Your task to perform on an android device: toggle location history Image 0: 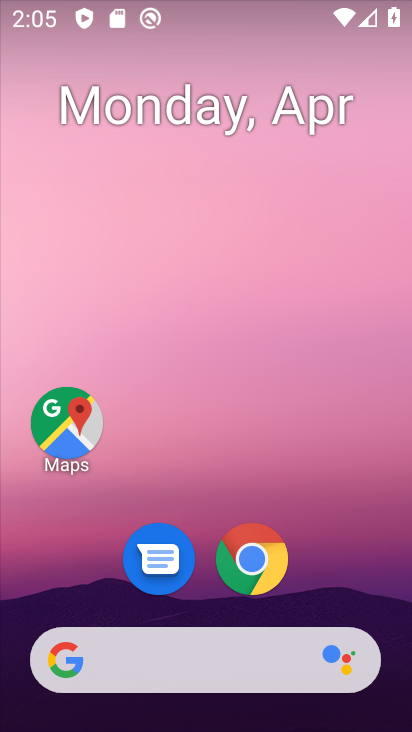
Step 0: drag from (304, 509) to (96, 62)
Your task to perform on an android device: toggle location history Image 1: 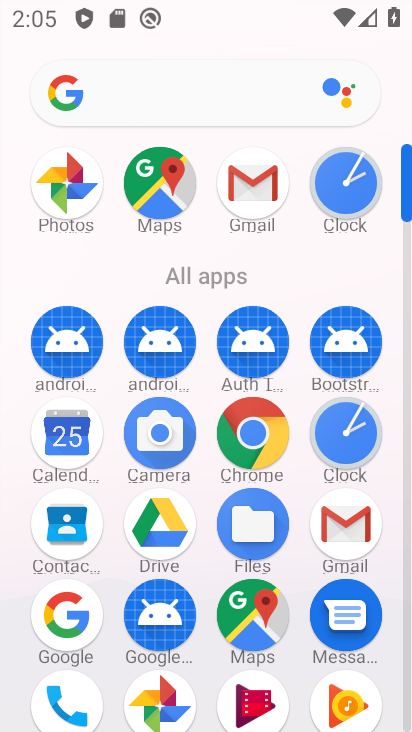
Step 1: drag from (204, 617) to (208, 238)
Your task to perform on an android device: toggle location history Image 2: 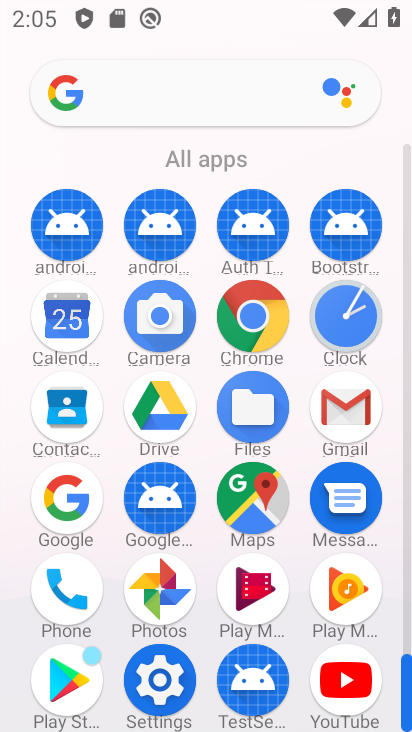
Step 2: click (155, 689)
Your task to perform on an android device: toggle location history Image 3: 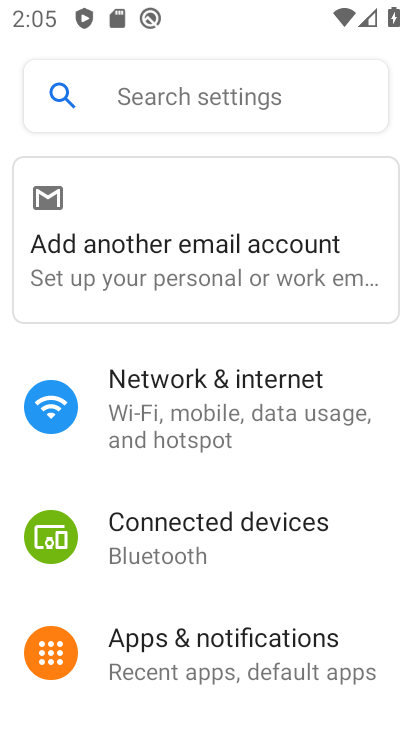
Step 3: drag from (194, 634) to (179, 120)
Your task to perform on an android device: toggle location history Image 4: 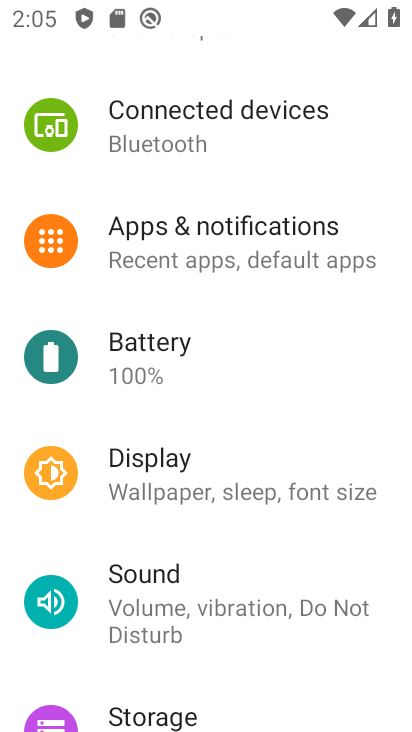
Step 4: drag from (182, 629) to (177, 98)
Your task to perform on an android device: toggle location history Image 5: 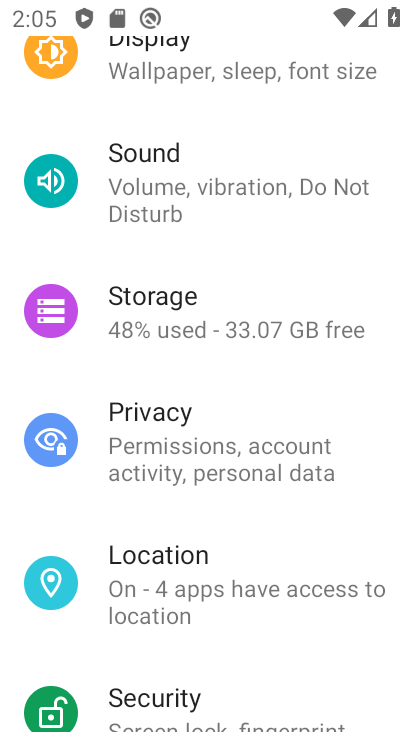
Step 5: click (195, 580)
Your task to perform on an android device: toggle location history Image 6: 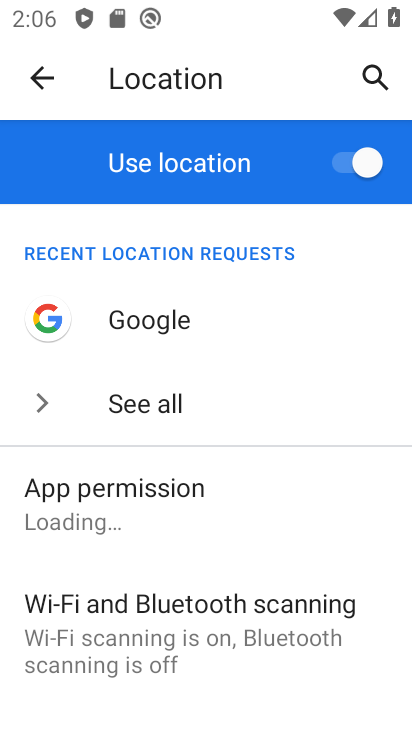
Step 6: drag from (170, 685) to (171, 138)
Your task to perform on an android device: toggle location history Image 7: 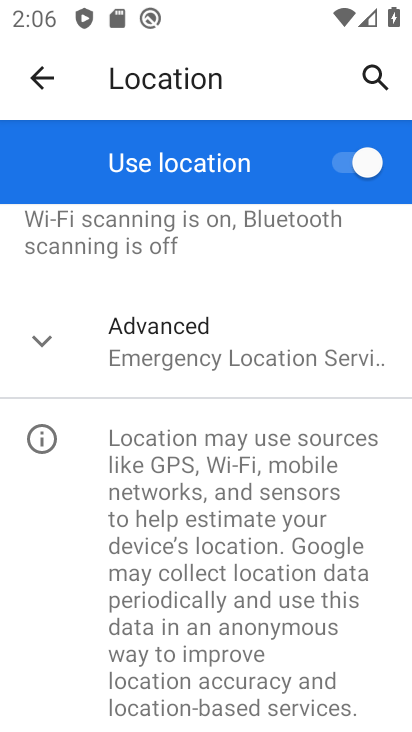
Step 7: click (181, 365)
Your task to perform on an android device: toggle location history Image 8: 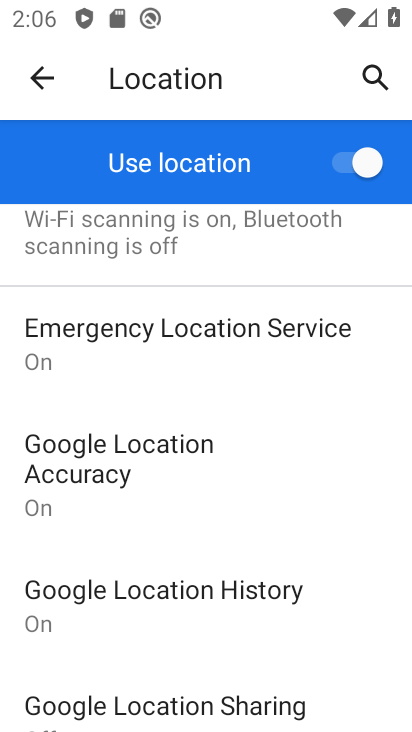
Step 8: click (147, 608)
Your task to perform on an android device: toggle location history Image 9: 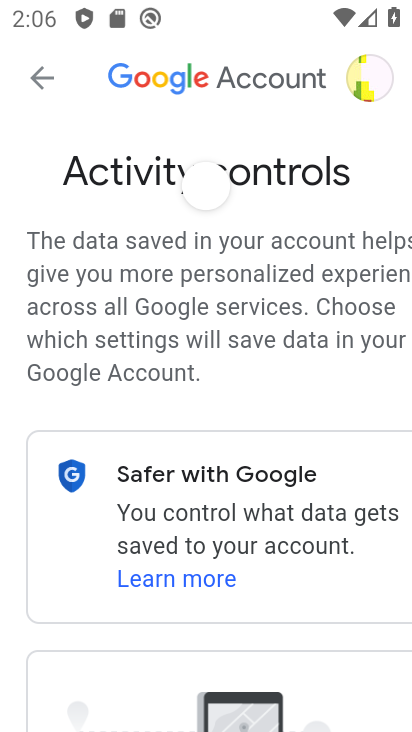
Step 9: drag from (163, 673) to (155, 161)
Your task to perform on an android device: toggle location history Image 10: 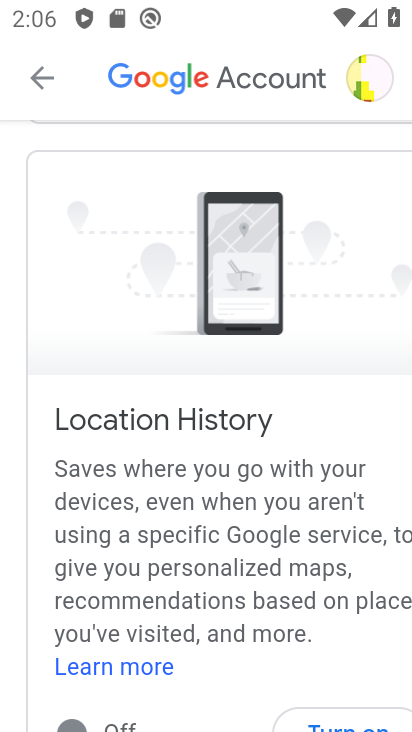
Step 10: drag from (253, 614) to (268, 210)
Your task to perform on an android device: toggle location history Image 11: 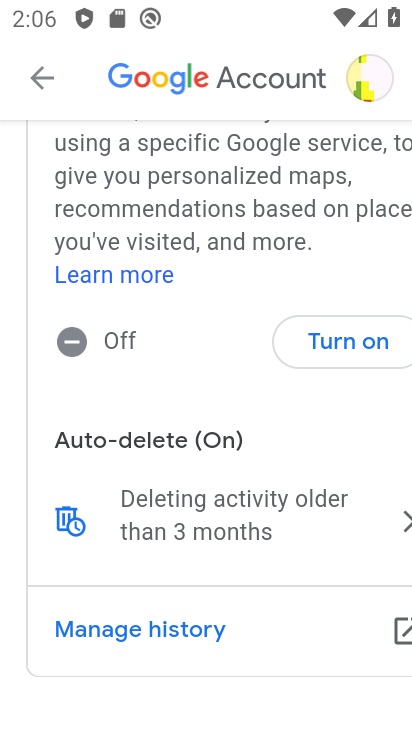
Step 11: click (67, 335)
Your task to perform on an android device: toggle location history Image 12: 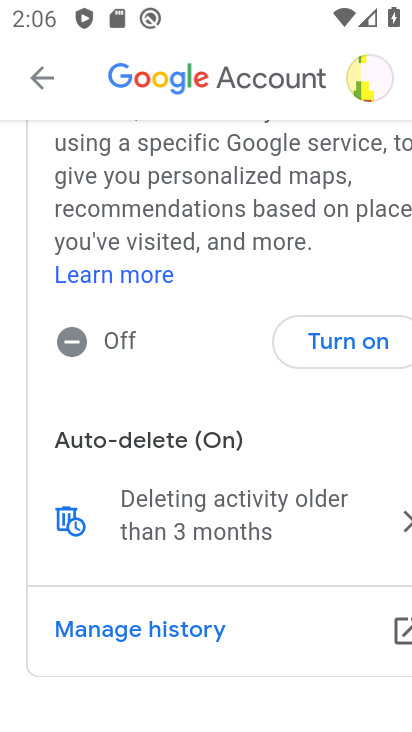
Step 12: click (84, 342)
Your task to perform on an android device: toggle location history Image 13: 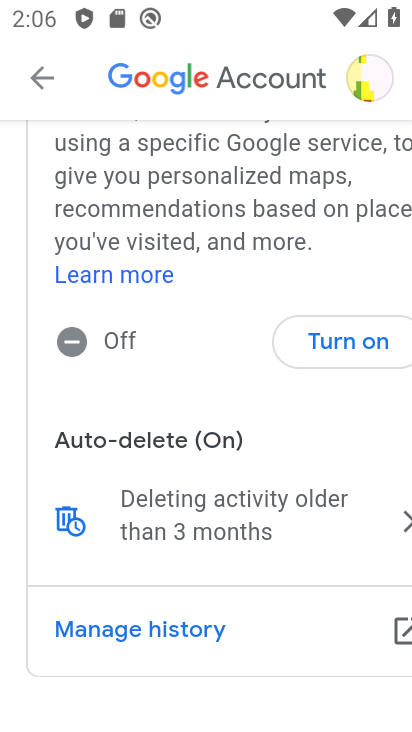
Step 13: click (76, 349)
Your task to perform on an android device: toggle location history Image 14: 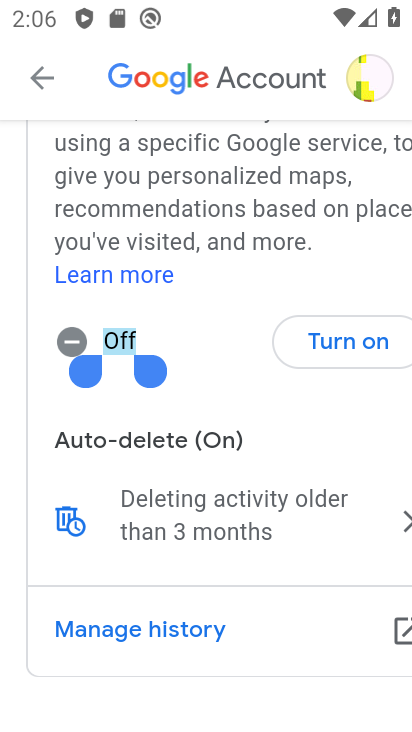
Step 14: click (124, 340)
Your task to perform on an android device: toggle location history Image 15: 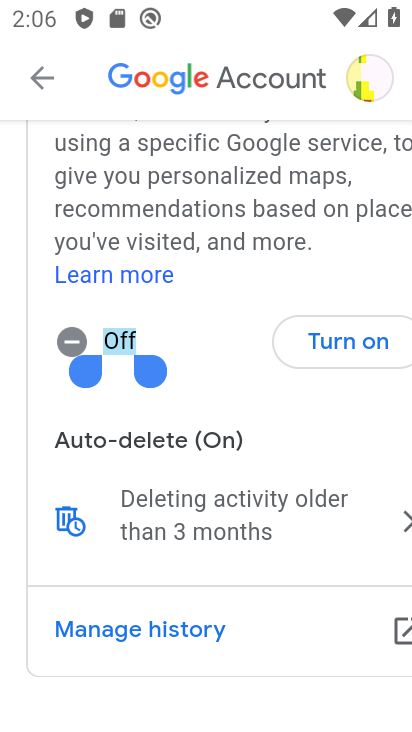
Step 15: click (116, 343)
Your task to perform on an android device: toggle location history Image 16: 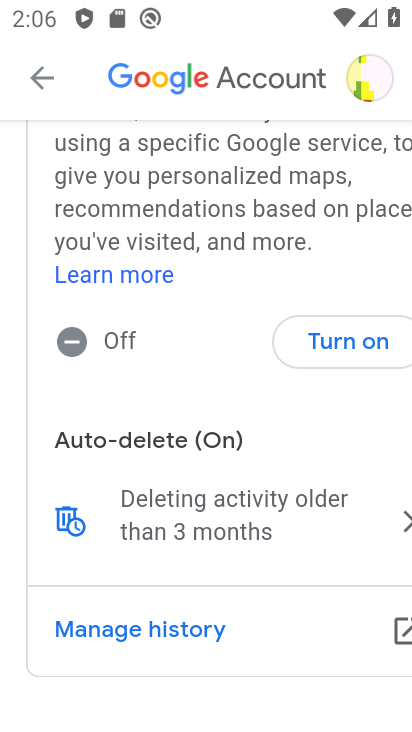
Step 16: click (176, 330)
Your task to perform on an android device: toggle location history Image 17: 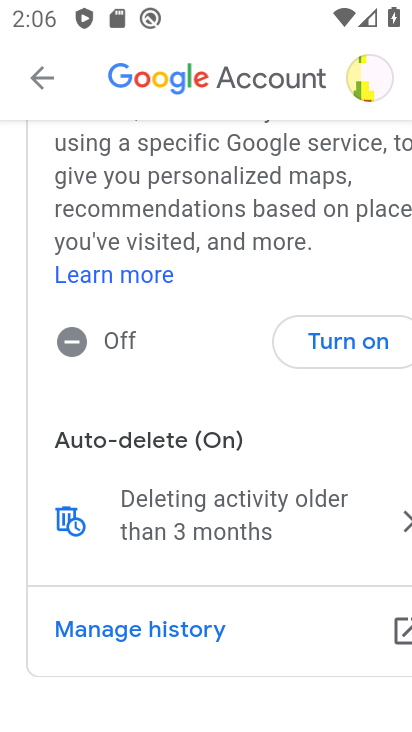
Step 17: click (126, 343)
Your task to perform on an android device: toggle location history Image 18: 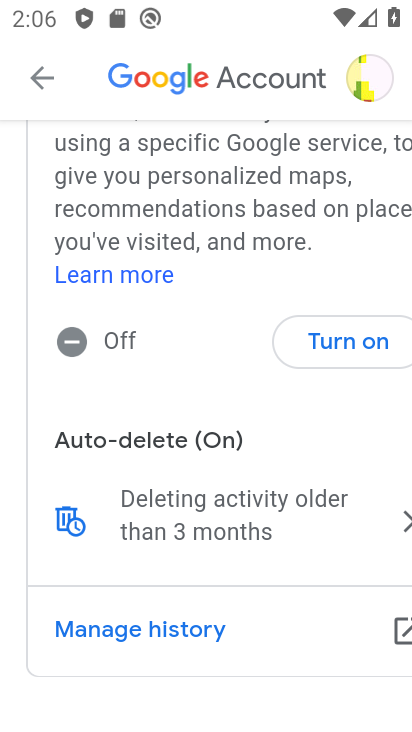
Step 18: task complete